Your task to perform on an android device: check data usage Image 0: 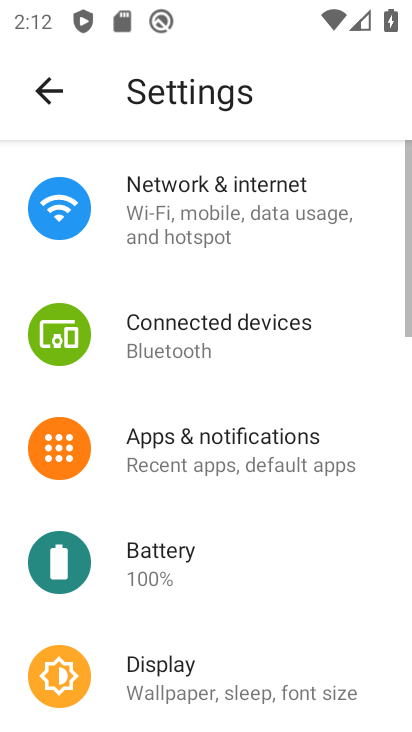
Step 0: drag from (181, 568) to (185, 338)
Your task to perform on an android device: check data usage Image 1: 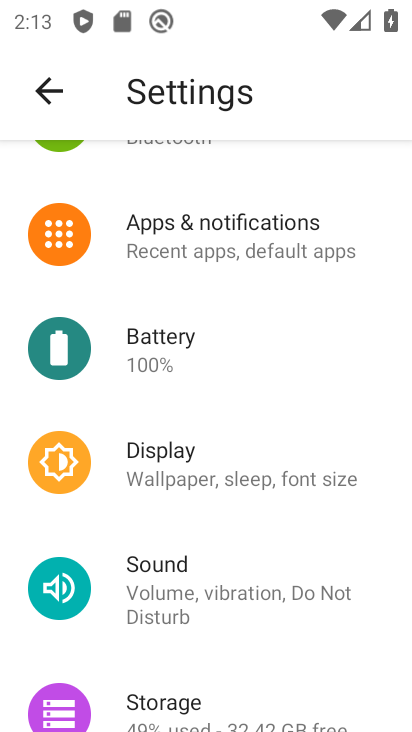
Step 1: drag from (231, 189) to (286, 621)
Your task to perform on an android device: check data usage Image 2: 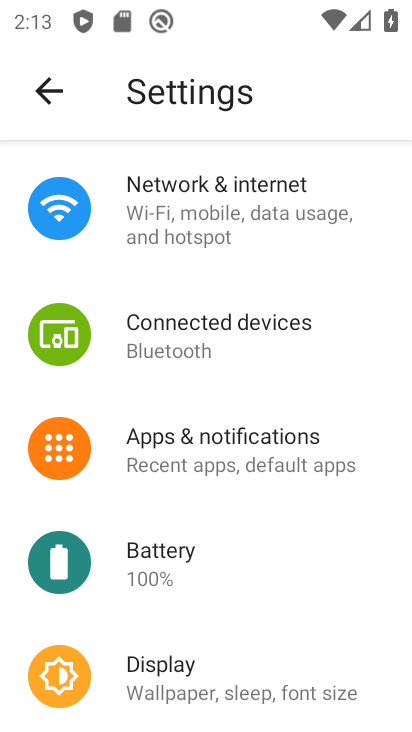
Step 2: click (158, 226)
Your task to perform on an android device: check data usage Image 3: 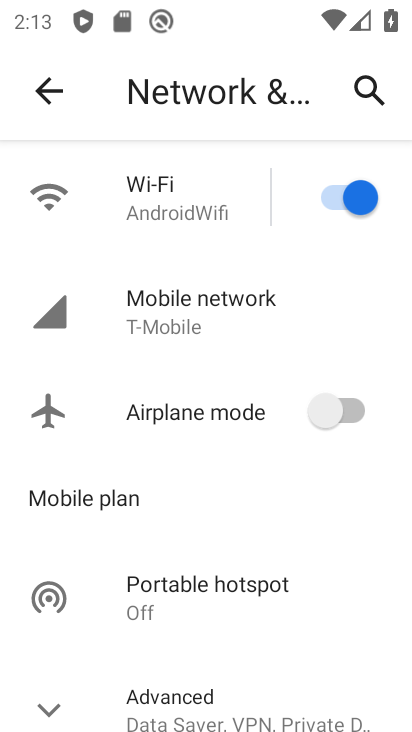
Step 3: click (206, 308)
Your task to perform on an android device: check data usage Image 4: 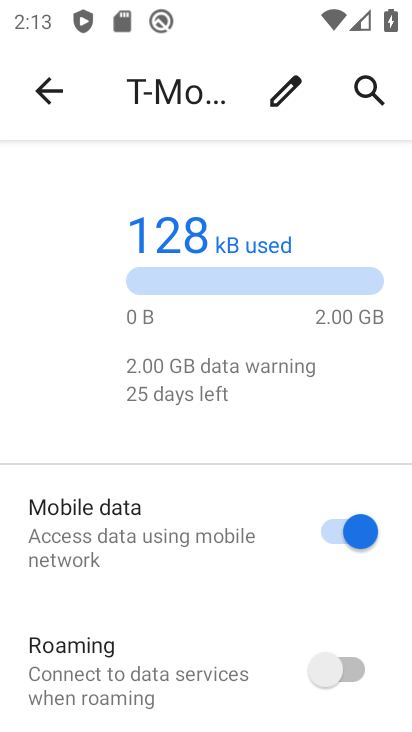
Step 4: task complete